Your task to perform on an android device: check data usage Image 0: 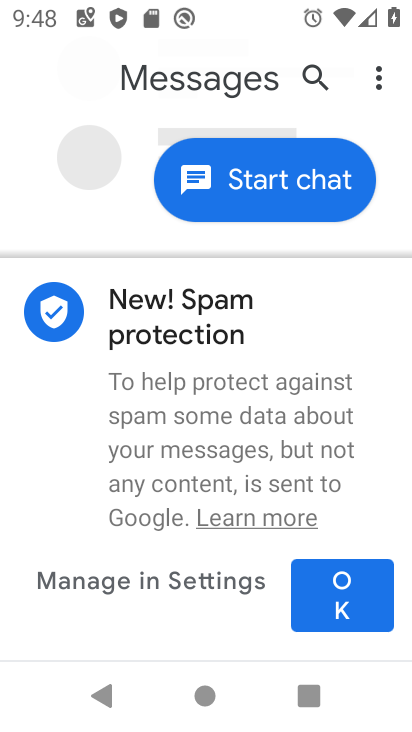
Step 0: press home button
Your task to perform on an android device: check data usage Image 1: 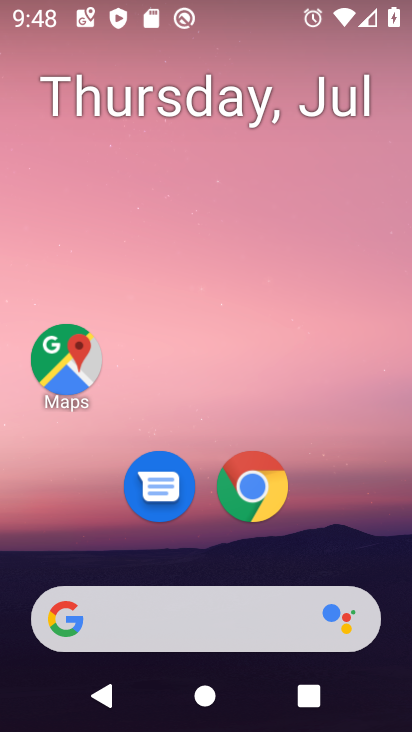
Step 1: drag from (157, 579) to (231, 268)
Your task to perform on an android device: check data usage Image 2: 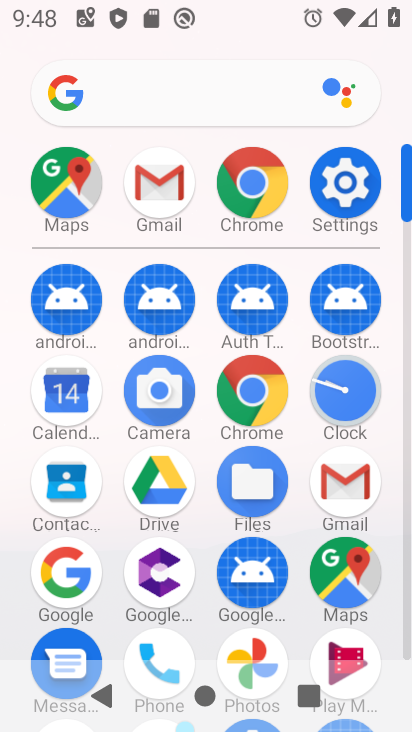
Step 2: click (340, 205)
Your task to perform on an android device: check data usage Image 3: 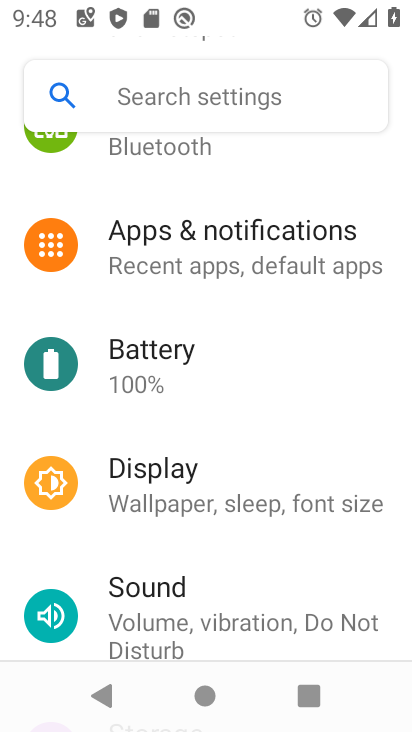
Step 3: drag from (182, 500) to (238, 260)
Your task to perform on an android device: check data usage Image 4: 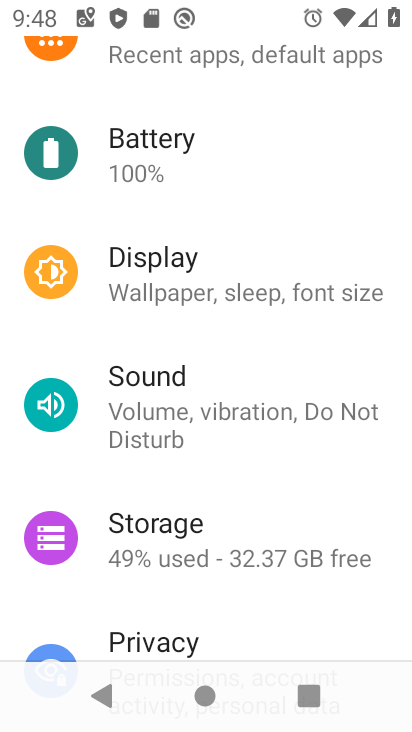
Step 4: drag from (182, 521) to (157, 651)
Your task to perform on an android device: check data usage Image 5: 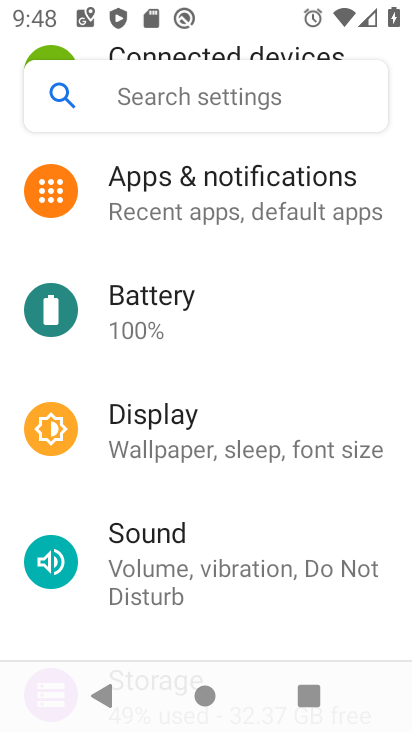
Step 5: drag from (180, 446) to (130, 653)
Your task to perform on an android device: check data usage Image 6: 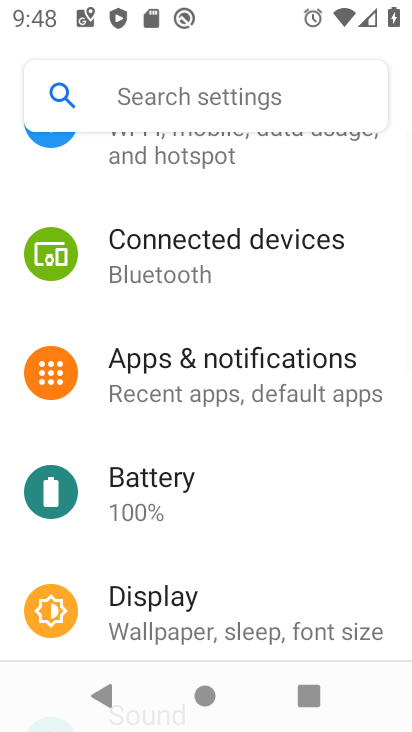
Step 6: drag from (149, 494) to (118, 676)
Your task to perform on an android device: check data usage Image 7: 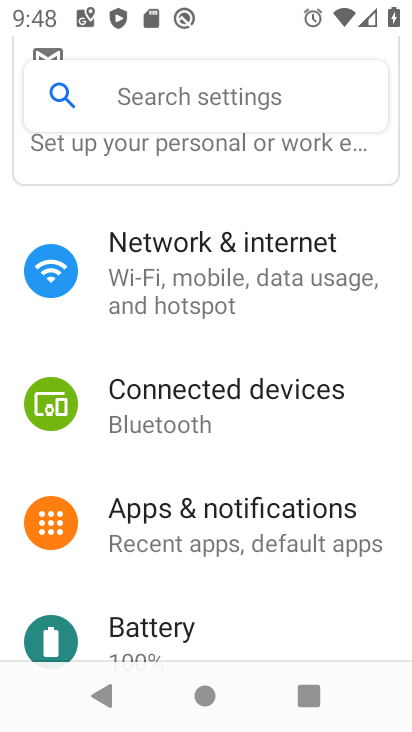
Step 7: click (265, 285)
Your task to perform on an android device: check data usage Image 8: 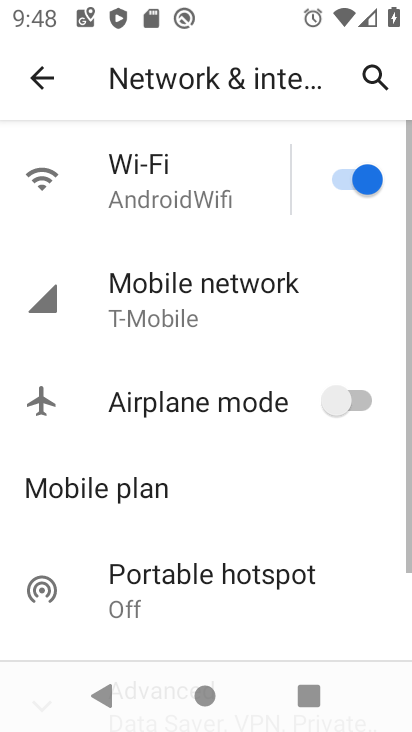
Step 8: click (248, 305)
Your task to perform on an android device: check data usage Image 9: 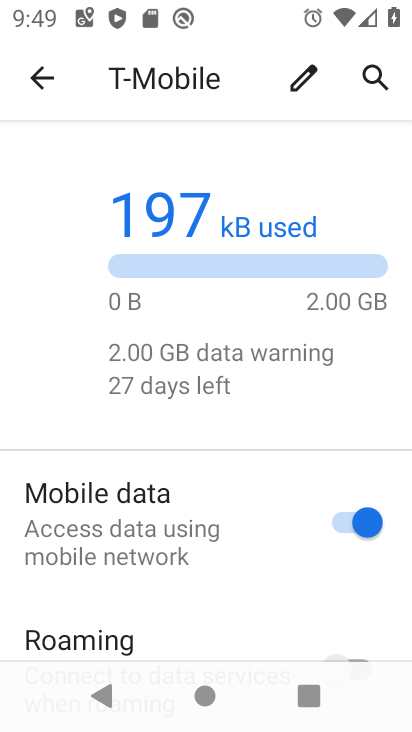
Step 9: drag from (172, 584) to (254, 301)
Your task to perform on an android device: check data usage Image 10: 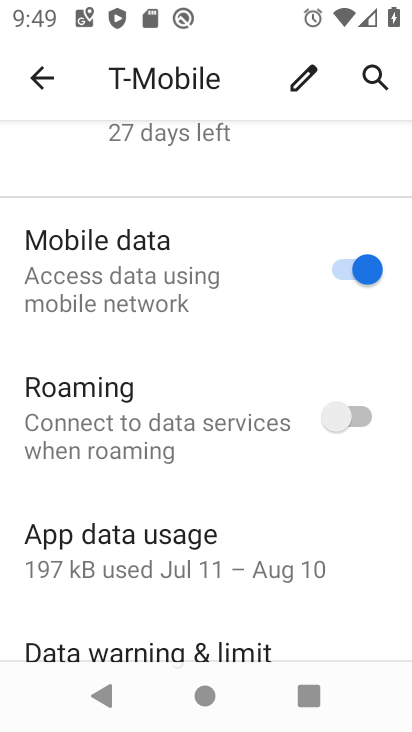
Step 10: click (176, 552)
Your task to perform on an android device: check data usage Image 11: 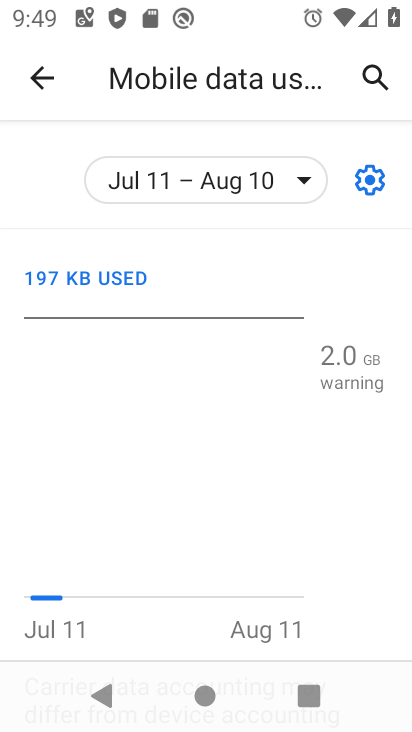
Step 11: task complete